Your task to perform on an android device: read, delete, or share a saved page in the chrome app Image 0: 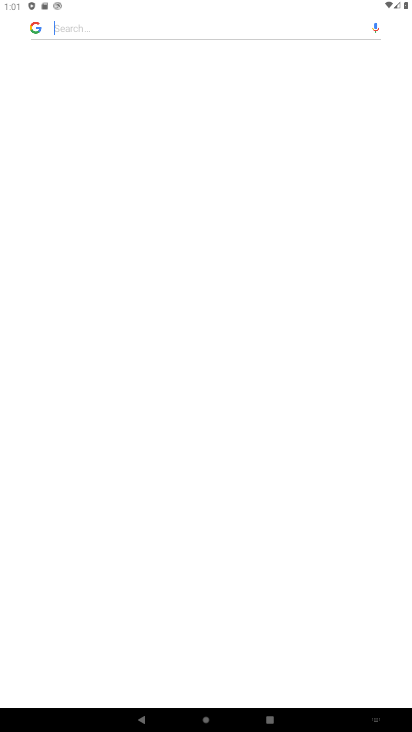
Step 0: press home button
Your task to perform on an android device: read, delete, or share a saved page in the chrome app Image 1: 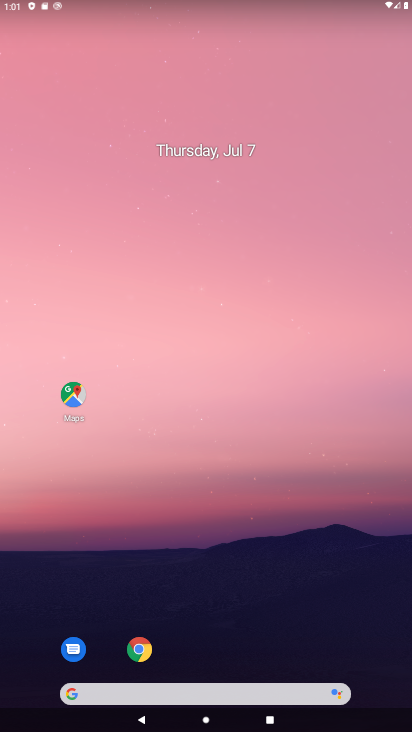
Step 1: click (134, 650)
Your task to perform on an android device: read, delete, or share a saved page in the chrome app Image 2: 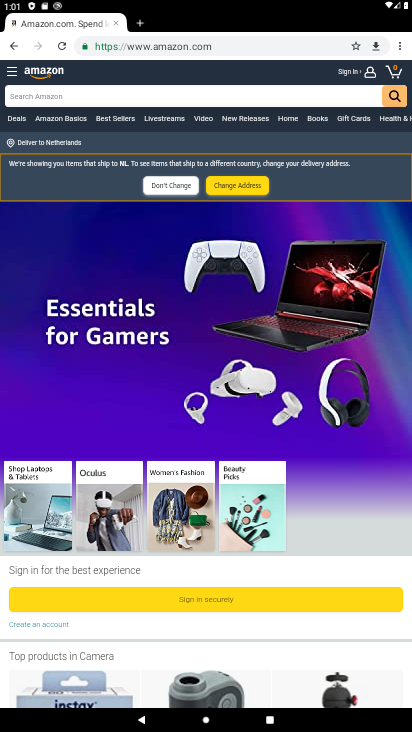
Step 2: click (399, 49)
Your task to perform on an android device: read, delete, or share a saved page in the chrome app Image 3: 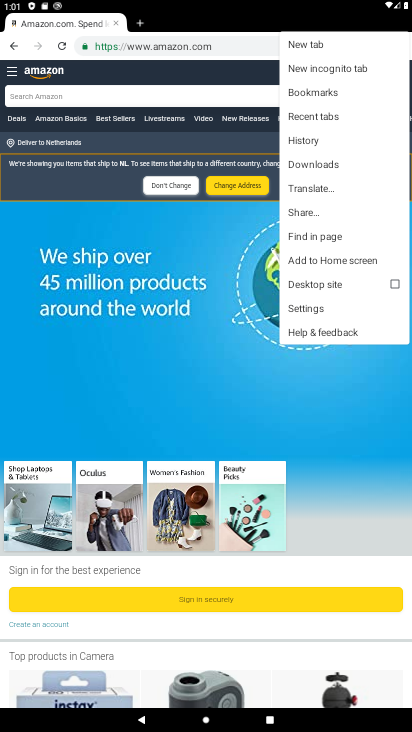
Step 3: click (306, 161)
Your task to perform on an android device: read, delete, or share a saved page in the chrome app Image 4: 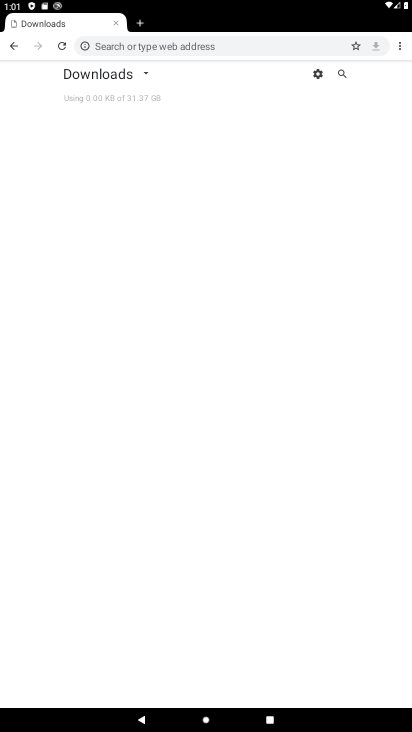
Step 4: click (138, 71)
Your task to perform on an android device: read, delete, or share a saved page in the chrome app Image 5: 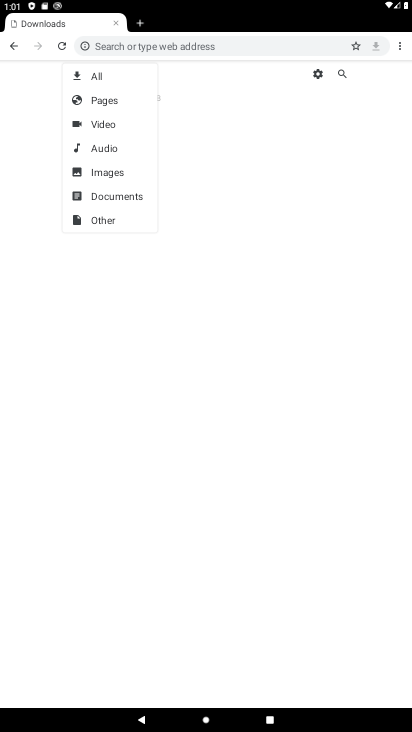
Step 5: click (97, 103)
Your task to perform on an android device: read, delete, or share a saved page in the chrome app Image 6: 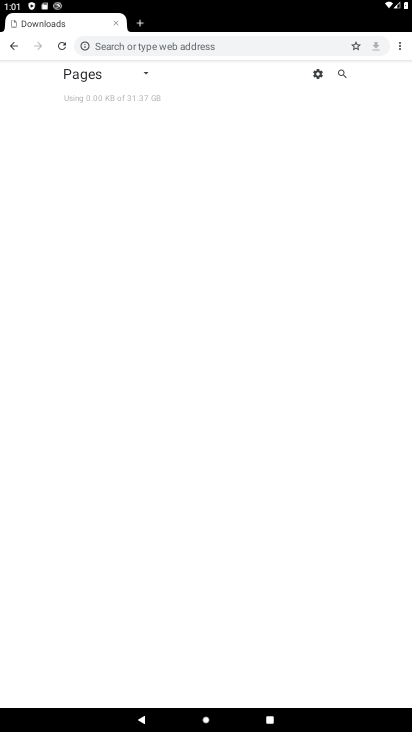
Step 6: task complete